Your task to perform on an android device: create a new album in the google photos Image 0: 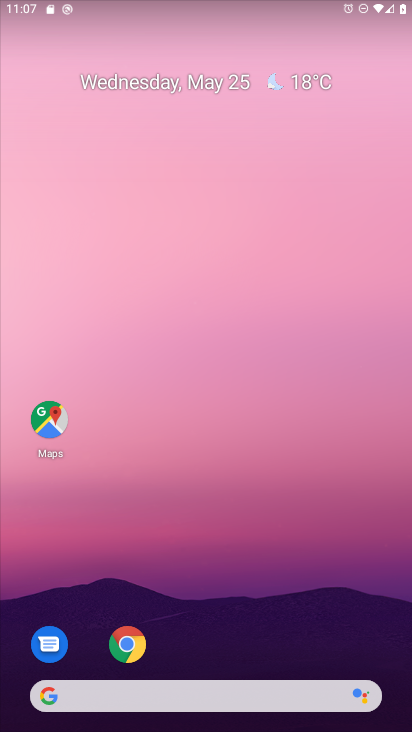
Step 0: press home button
Your task to perform on an android device: create a new album in the google photos Image 1: 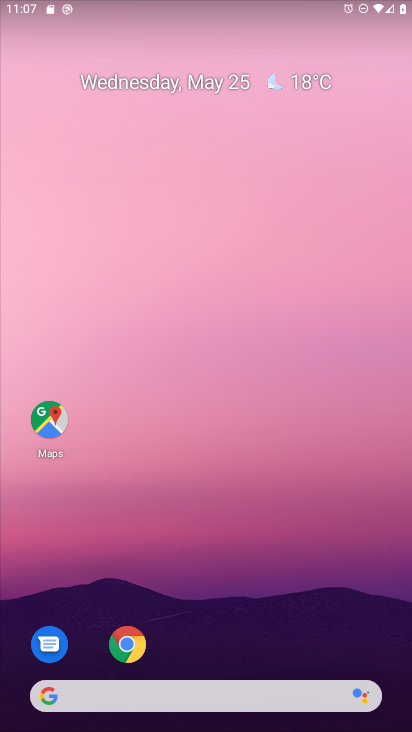
Step 1: drag from (217, 659) to (258, 10)
Your task to perform on an android device: create a new album in the google photos Image 2: 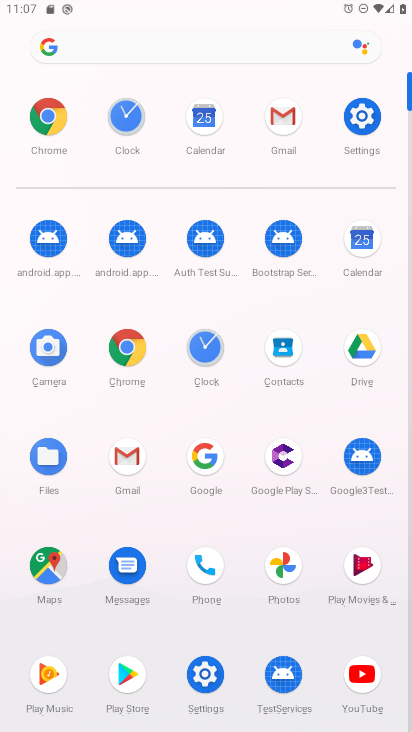
Step 2: click (274, 560)
Your task to perform on an android device: create a new album in the google photos Image 3: 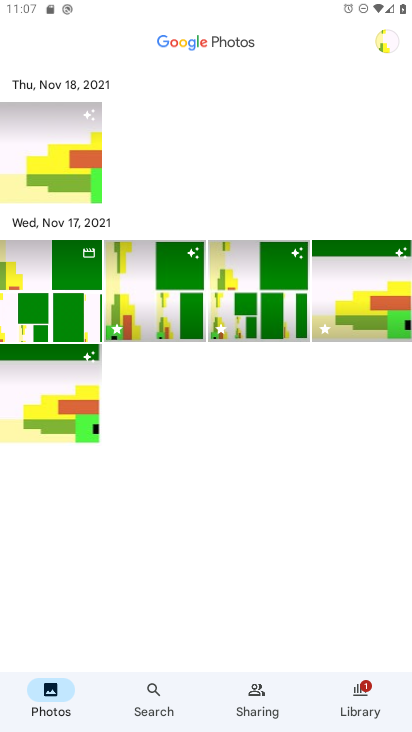
Step 3: click (262, 694)
Your task to perform on an android device: create a new album in the google photos Image 4: 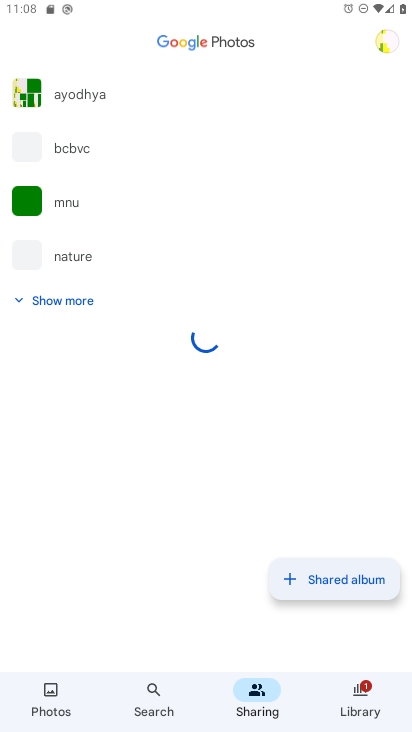
Step 4: click (295, 579)
Your task to perform on an android device: create a new album in the google photos Image 5: 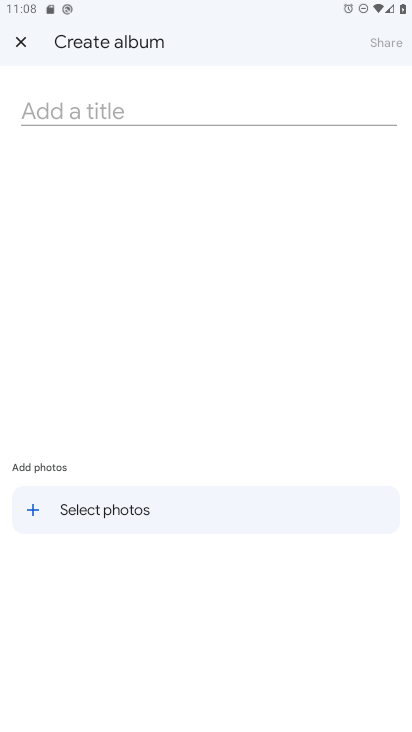
Step 5: click (43, 510)
Your task to perform on an android device: create a new album in the google photos Image 6: 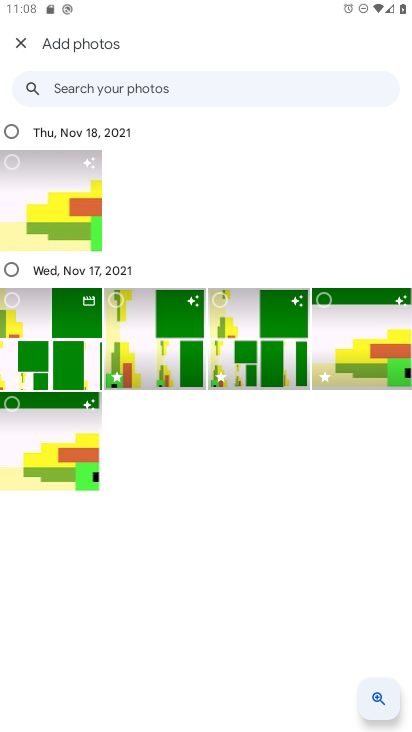
Step 6: click (48, 336)
Your task to perform on an android device: create a new album in the google photos Image 7: 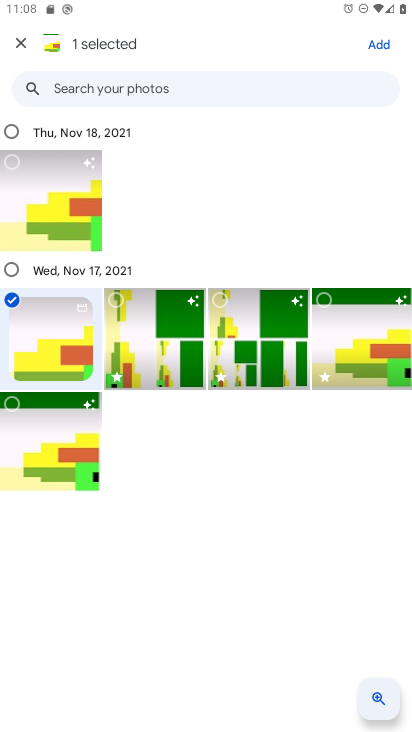
Step 7: click (145, 340)
Your task to perform on an android device: create a new album in the google photos Image 8: 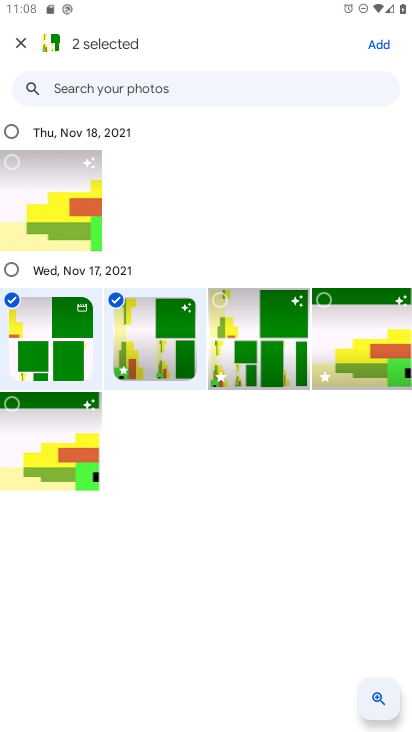
Step 8: click (263, 334)
Your task to perform on an android device: create a new album in the google photos Image 9: 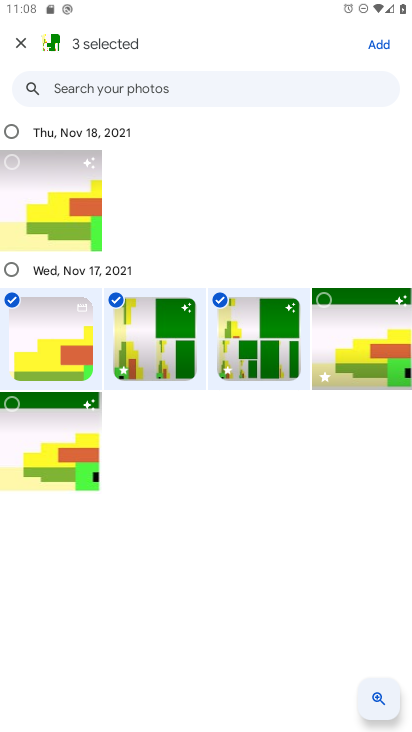
Step 9: click (377, 39)
Your task to perform on an android device: create a new album in the google photos Image 10: 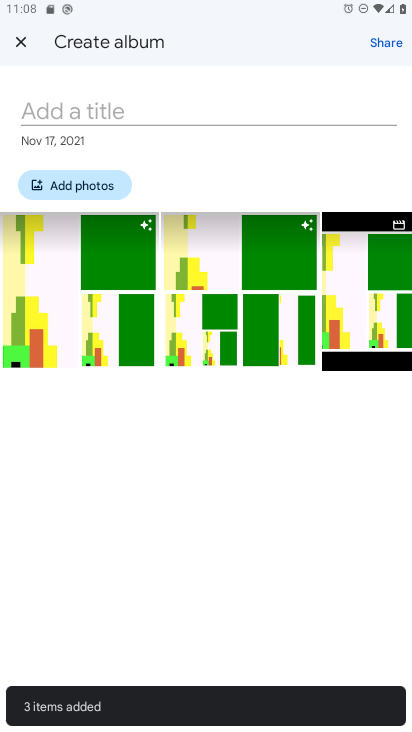
Step 10: click (101, 107)
Your task to perform on an android device: create a new album in the google photos Image 11: 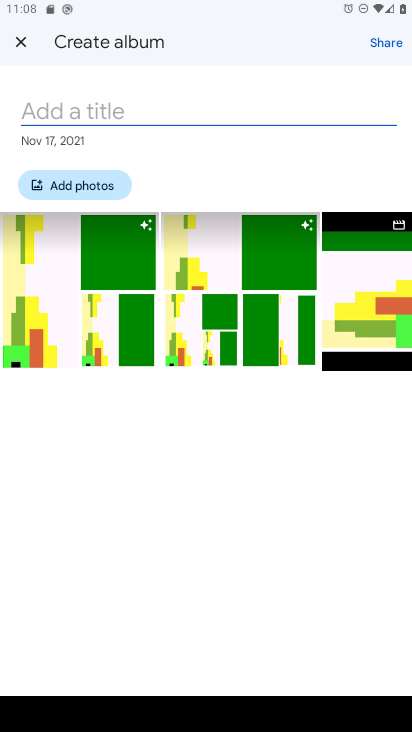
Step 11: type "hvyfcd"
Your task to perform on an android device: create a new album in the google photos Image 12: 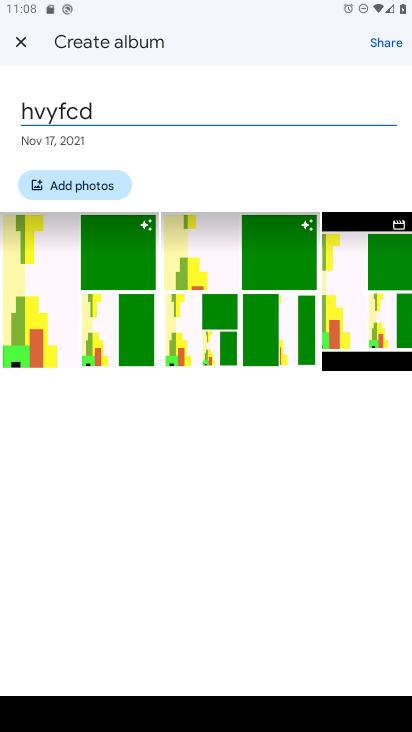
Step 12: click (178, 576)
Your task to perform on an android device: create a new album in the google photos Image 13: 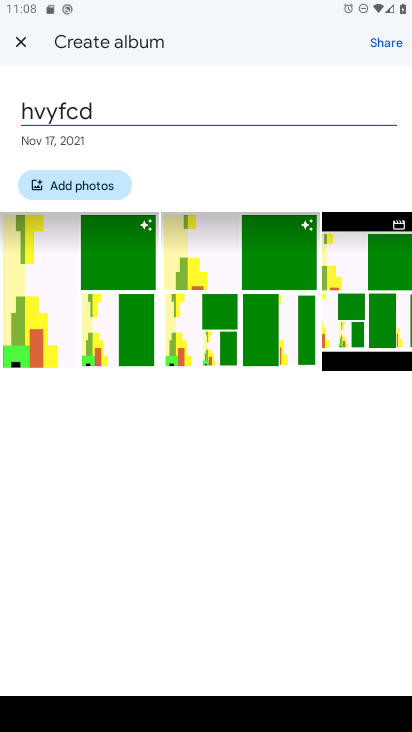
Step 13: click (275, 563)
Your task to perform on an android device: create a new album in the google photos Image 14: 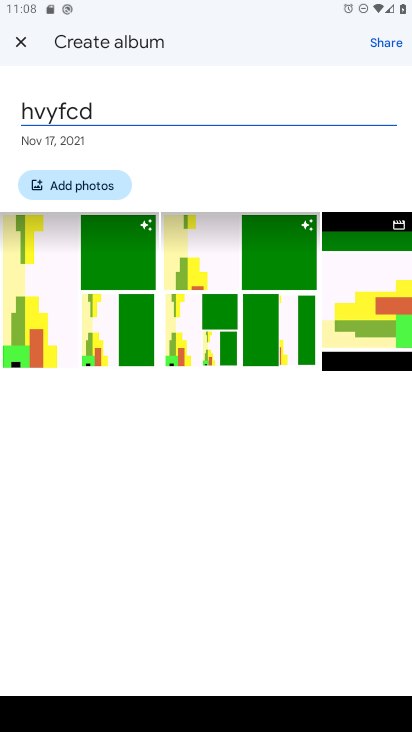
Step 14: click (67, 473)
Your task to perform on an android device: create a new album in the google photos Image 15: 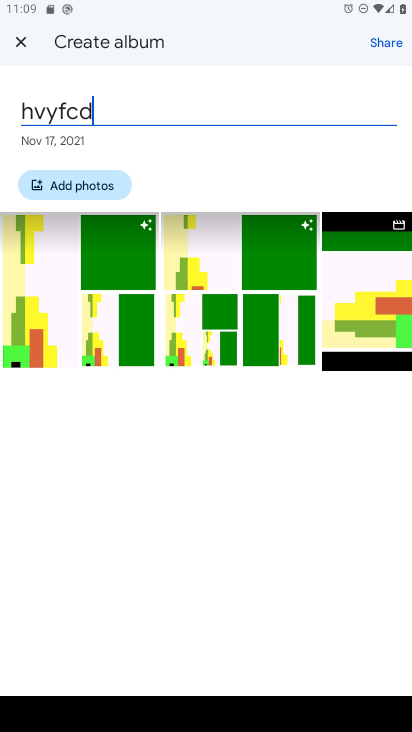
Step 15: task complete